Your task to perform on an android device: Open CNN.com Image 0: 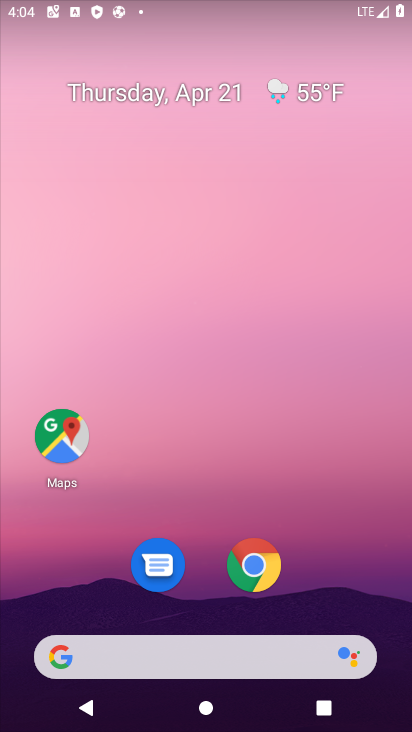
Step 0: click (230, 655)
Your task to perform on an android device: Open CNN.com Image 1: 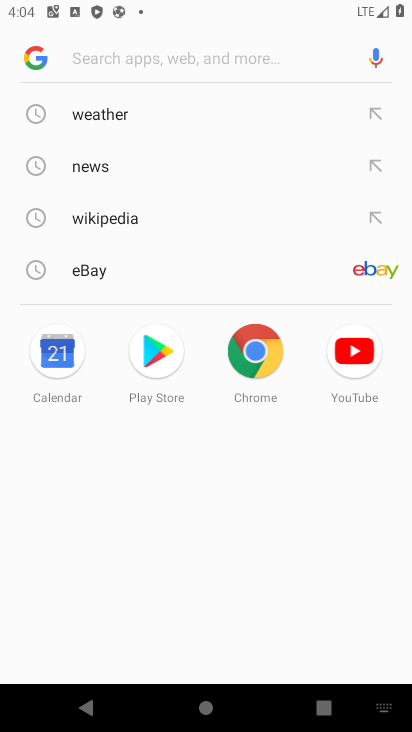
Step 1: type "cnn.com"
Your task to perform on an android device: Open CNN.com Image 2: 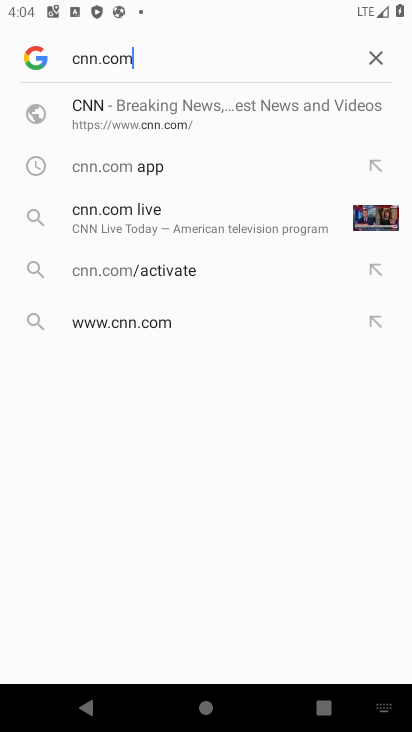
Step 2: click (155, 107)
Your task to perform on an android device: Open CNN.com Image 3: 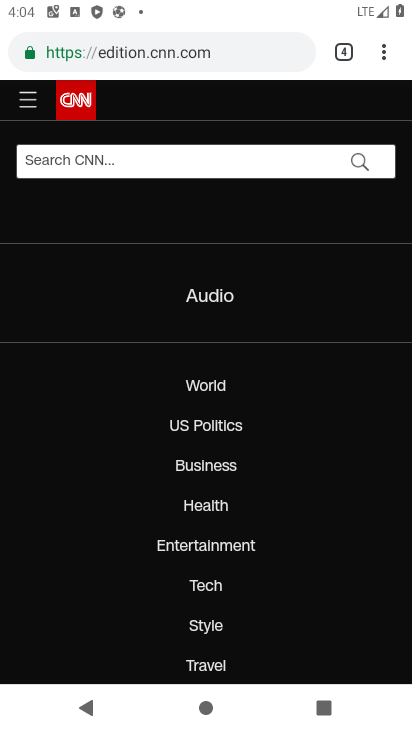
Step 3: task complete